Your task to perform on an android device: set the stopwatch Image 0: 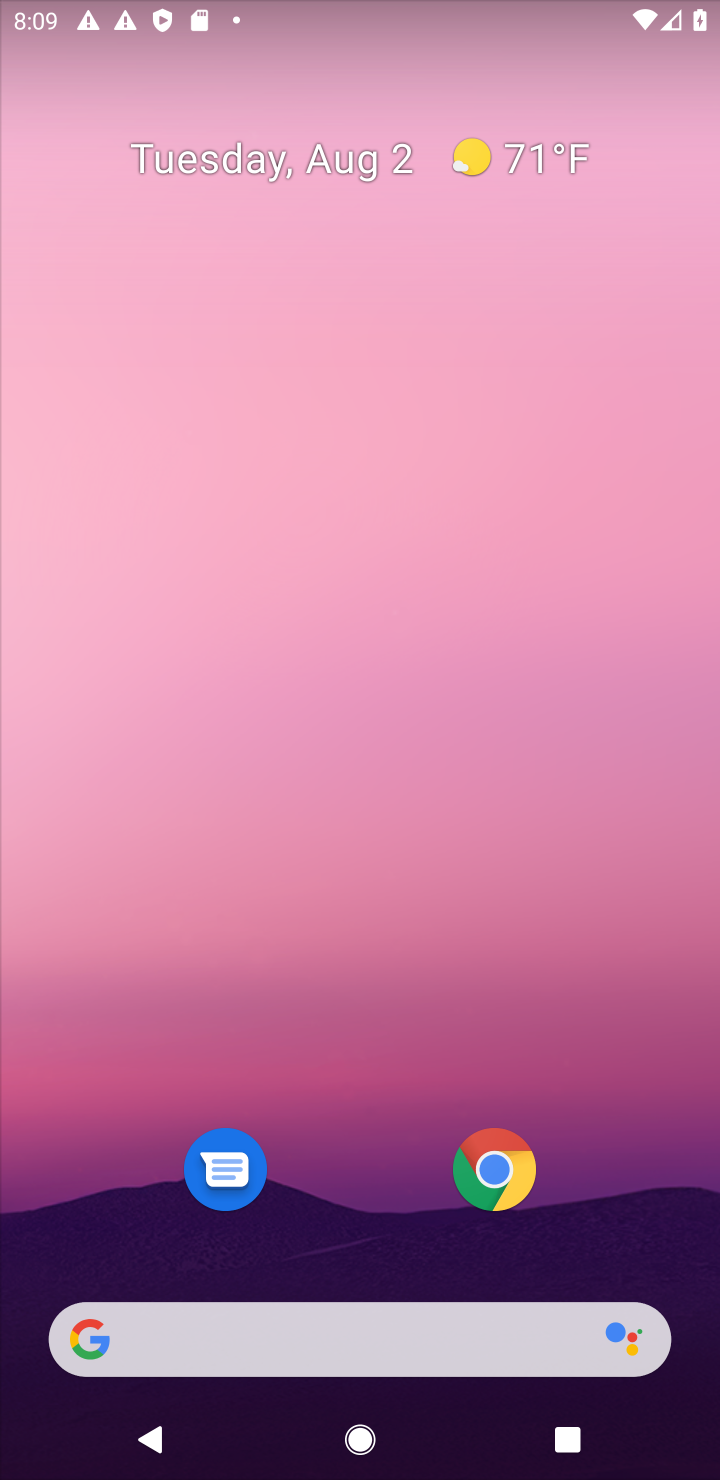
Step 0: drag from (355, 1057) to (449, 1)
Your task to perform on an android device: set the stopwatch Image 1: 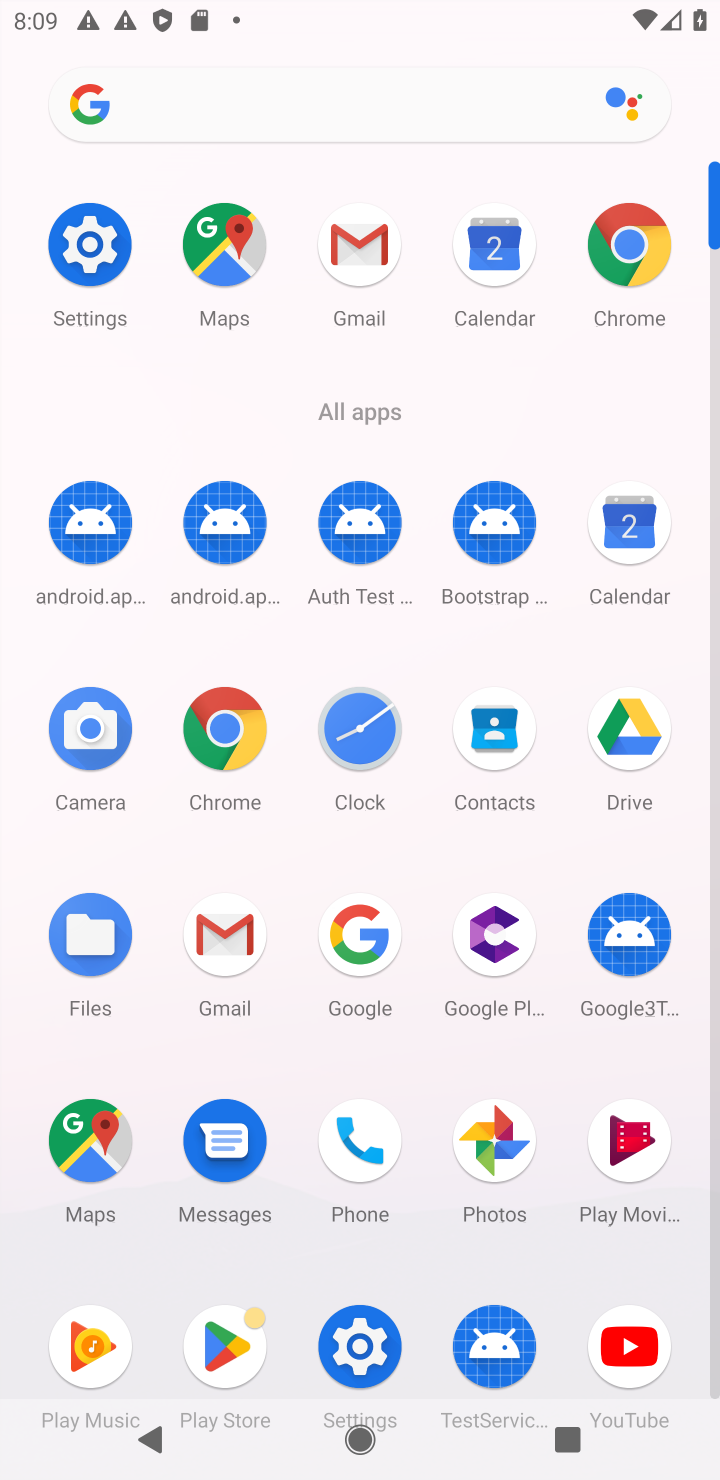
Step 1: click (352, 727)
Your task to perform on an android device: set the stopwatch Image 2: 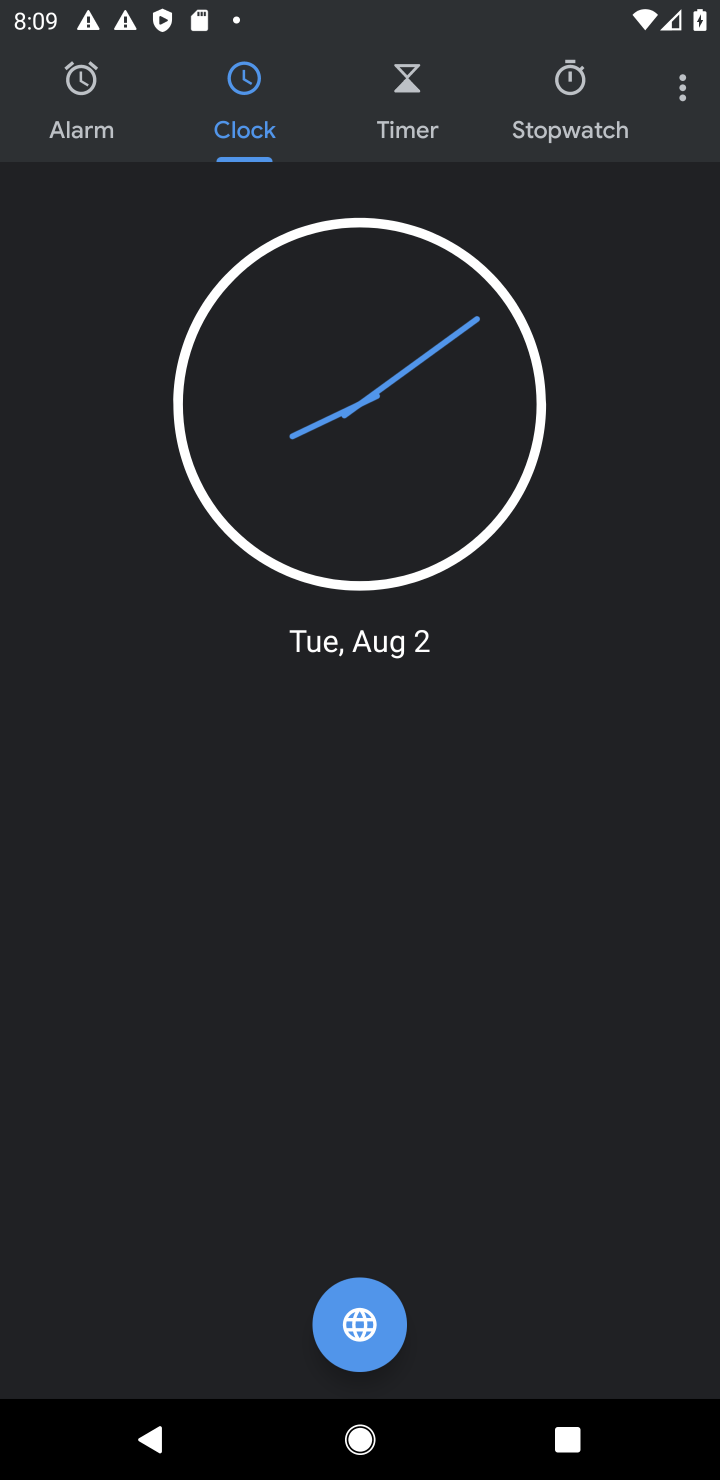
Step 2: click (568, 113)
Your task to perform on an android device: set the stopwatch Image 3: 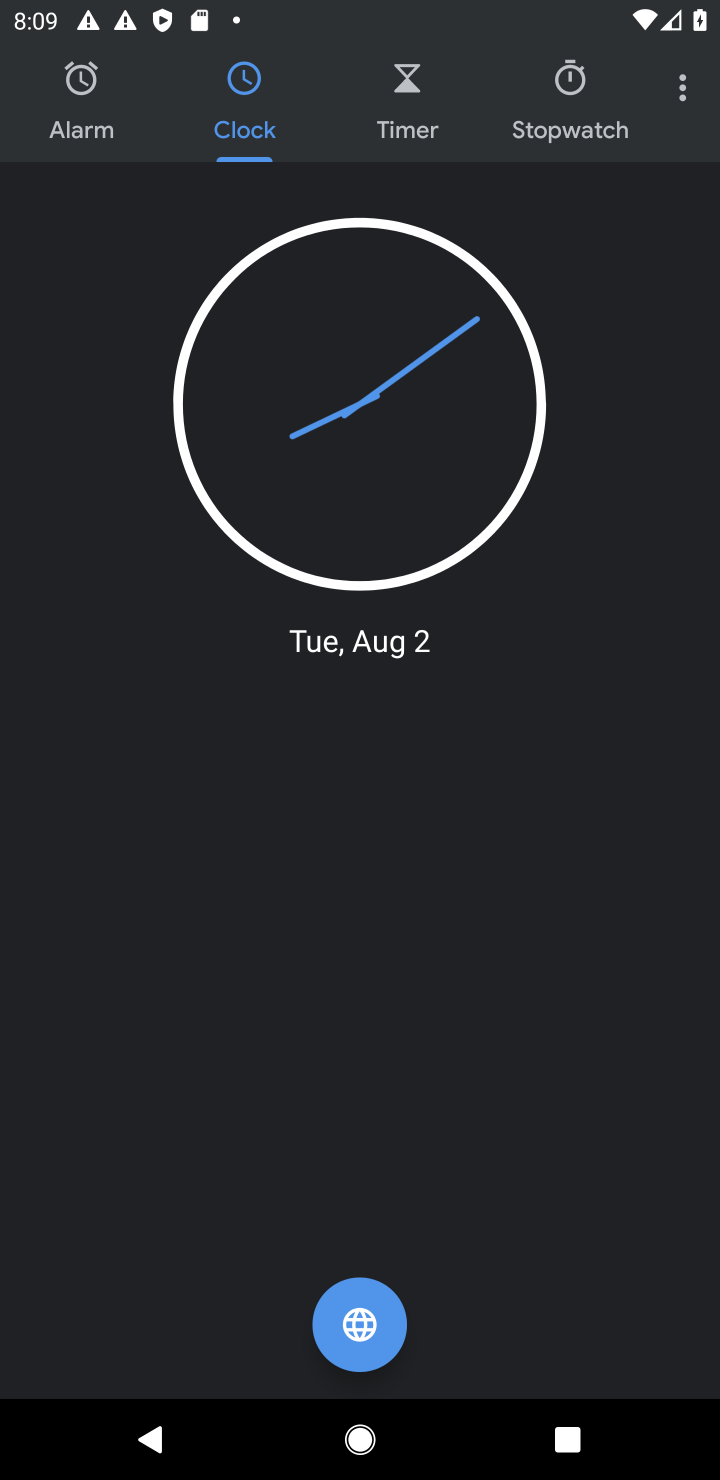
Step 3: click (579, 104)
Your task to perform on an android device: set the stopwatch Image 4: 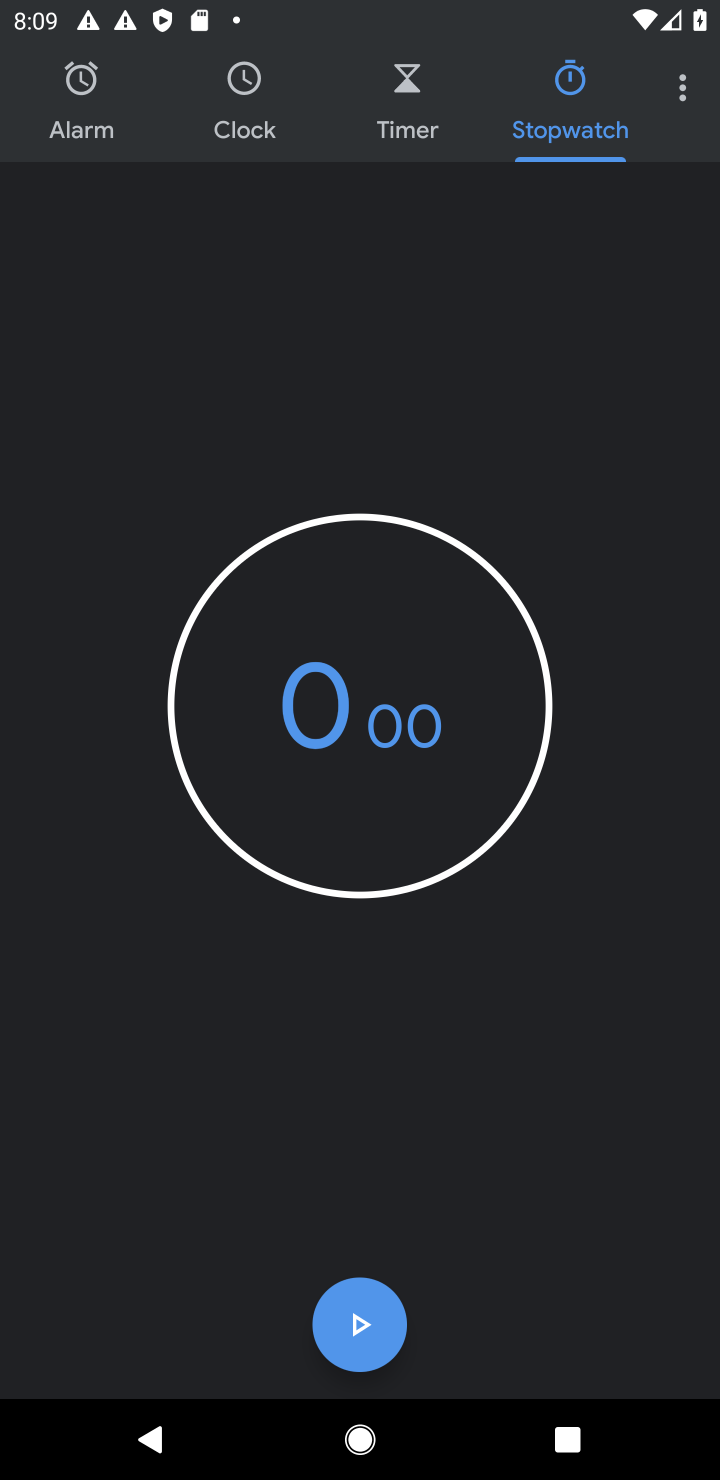
Step 4: task complete